Your task to perform on an android device: Set the phone to "Do not disturb". Image 0: 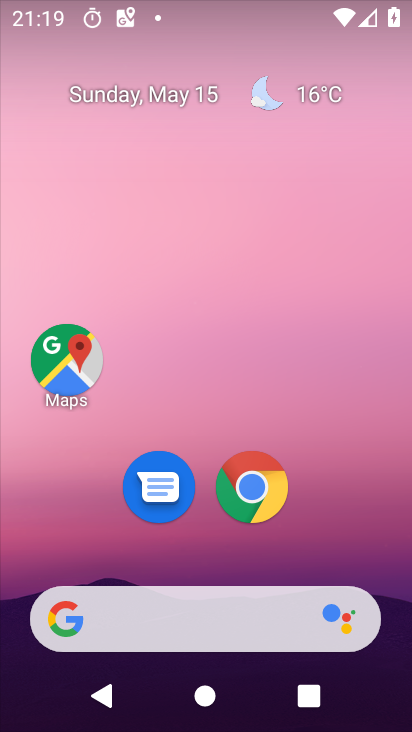
Step 0: drag from (402, 474) to (409, 242)
Your task to perform on an android device: Set the phone to "Do not disturb". Image 1: 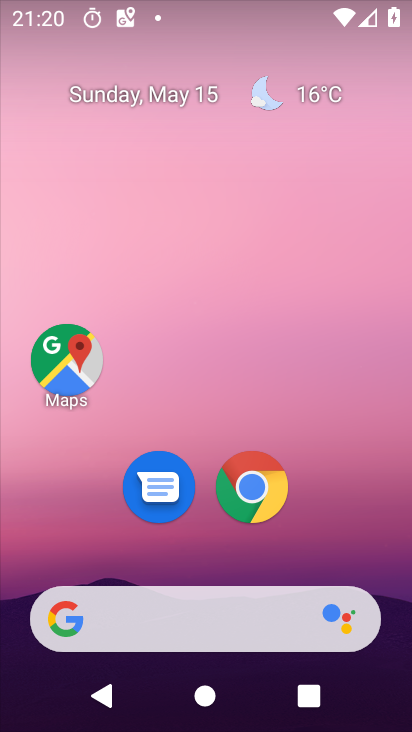
Step 1: drag from (381, 551) to (309, 164)
Your task to perform on an android device: Set the phone to "Do not disturb". Image 2: 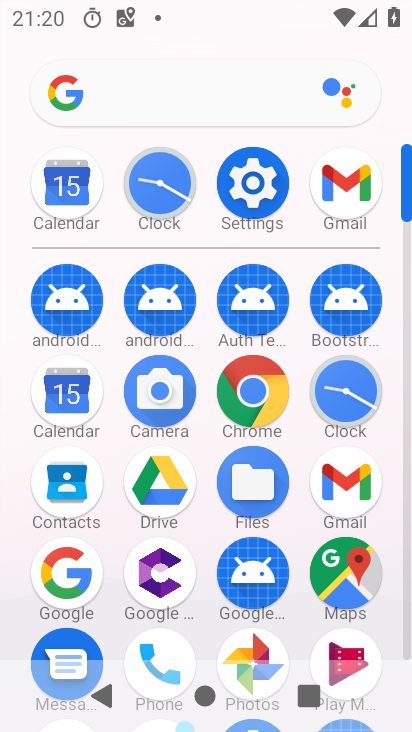
Step 2: click (246, 190)
Your task to perform on an android device: Set the phone to "Do not disturb". Image 3: 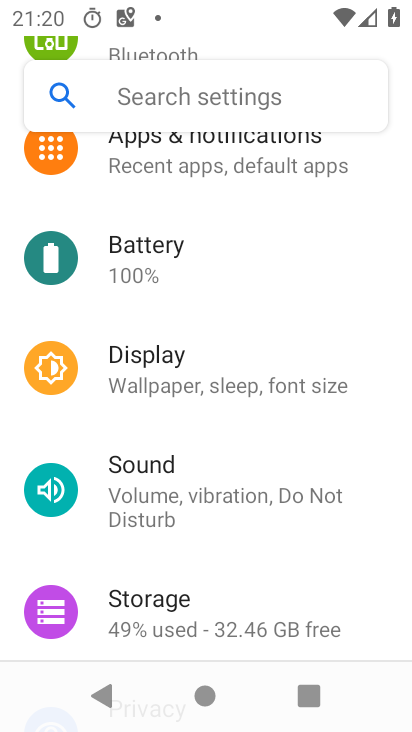
Step 3: click (136, 488)
Your task to perform on an android device: Set the phone to "Do not disturb". Image 4: 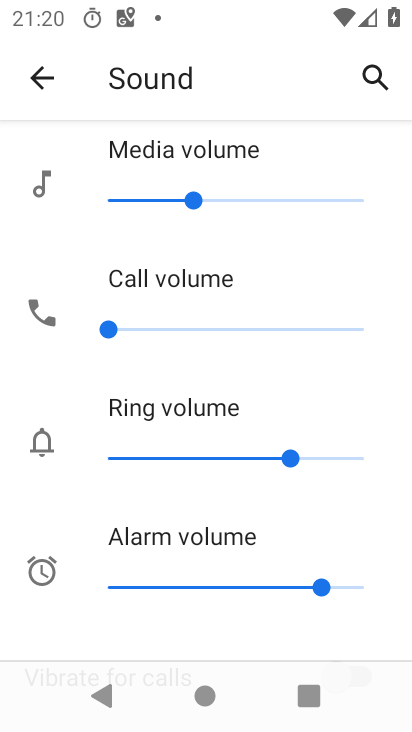
Step 4: drag from (374, 630) to (349, 231)
Your task to perform on an android device: Set the phone to "Do not disturb". Image 5: 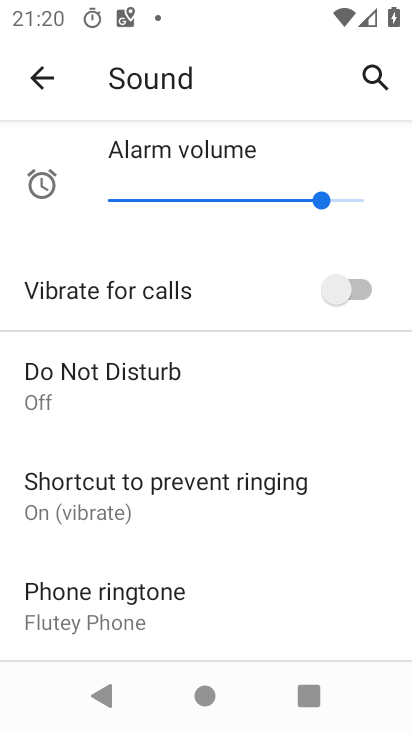
Step 5: click (85, 372)
Your task to perform on an android device: Set the phone to "Do not disturb". Image 6: 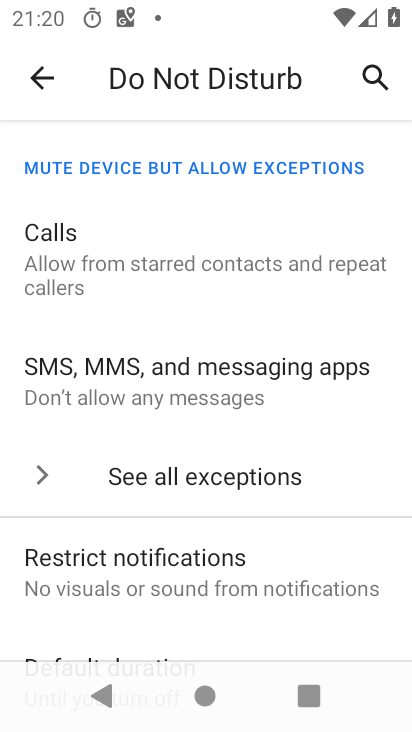
Step 6: drag from (277, 600) to (256, 298)
Your task to perform on an android device: Set the phone to "Do not disturb". Image 7: 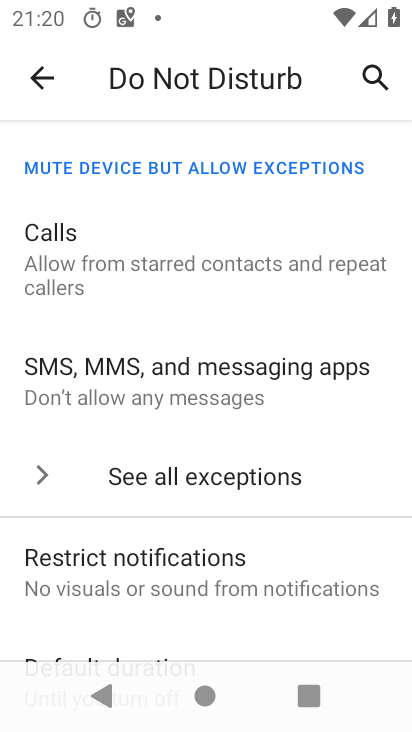
Step 7: drag from (291, 629) to (313, 291)
Your task to perform on an android device: Set the phone to "Do not disturb". Image 8: 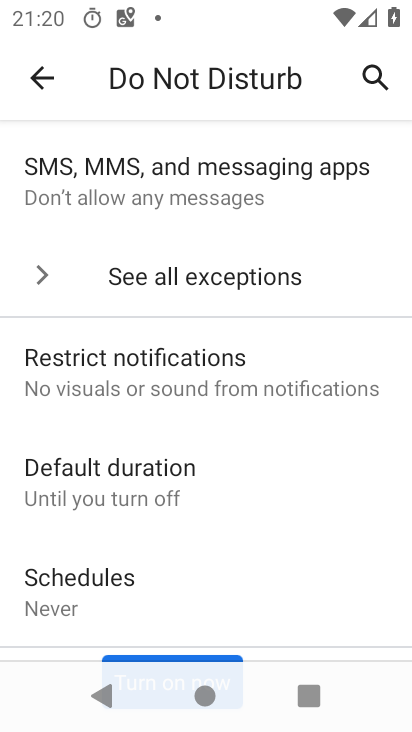
Step 8: drag from (277, 581) to (321, 304)
Your task to perform on an android device: Set the phone to "Do not disturb". Image 9: 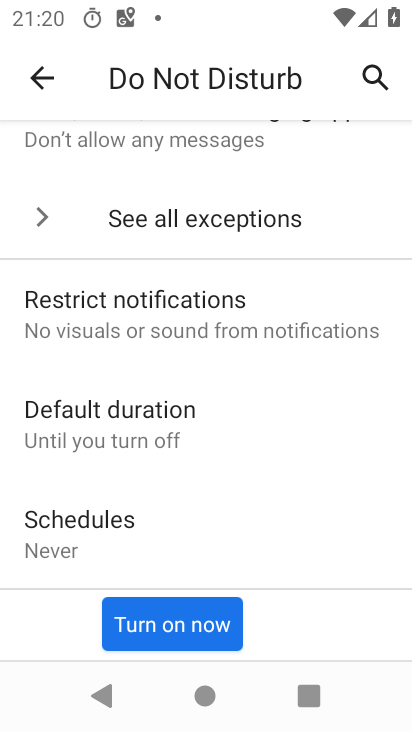
Step 9: click (172, 624)
Your task to perform on an android device: Set the phone to "Do not disturb". Image 10: 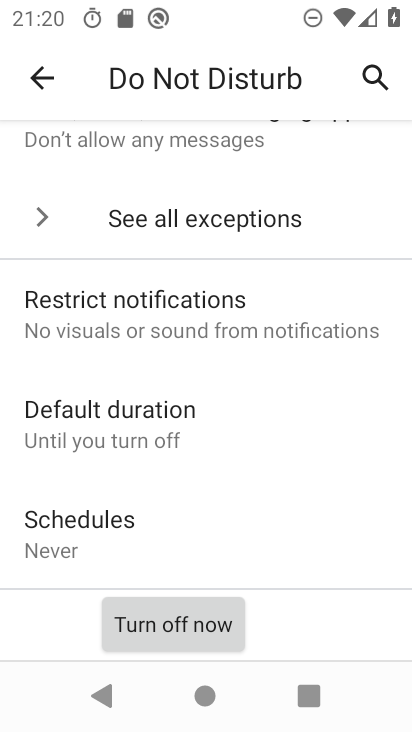
Step 10: click (184, 615)
Your task to perform on an android device: Set the phone to "Do not disturb". Image 11: 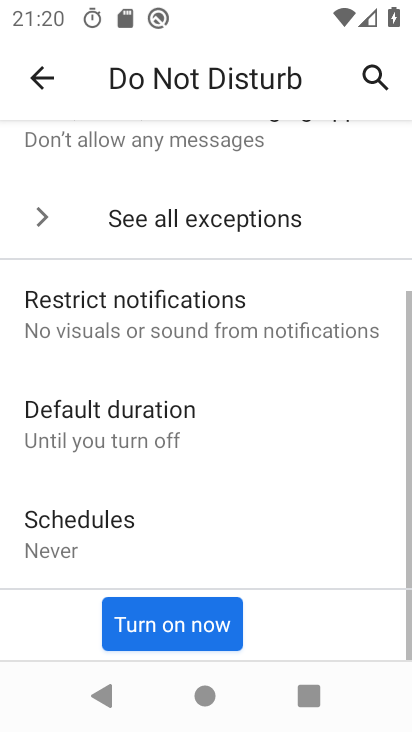
Step 11: task complete